Your task to perform on an android device: check android version Image 0: 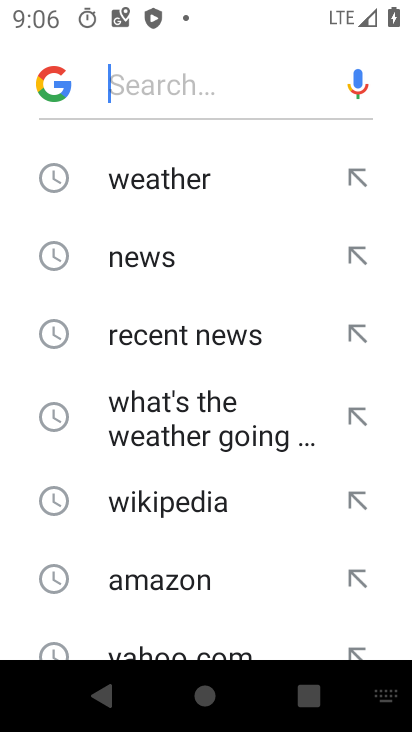
Step 0: press home button
Your task to perform on an android device: check android version Image 1: 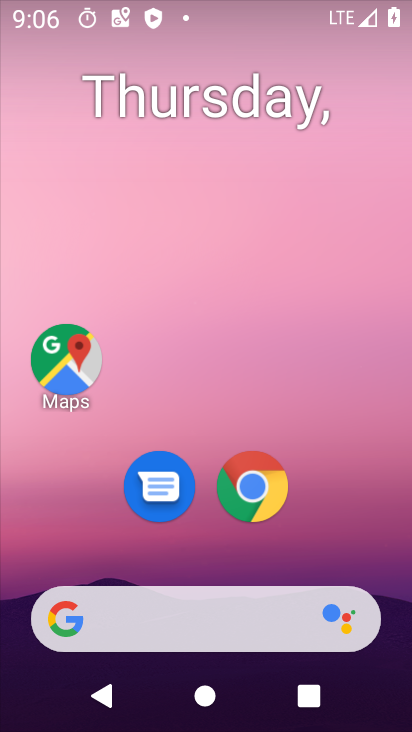
Step 1: drag from (238, 623) to (260, 174)
Your task to perform on an android device: check android version Image 2: 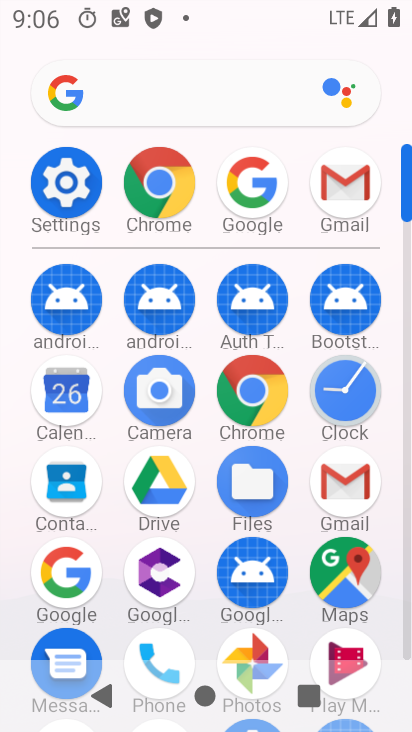
Step 2: click (62, 573)
Your task to perform on an android device: check android version Image 3: 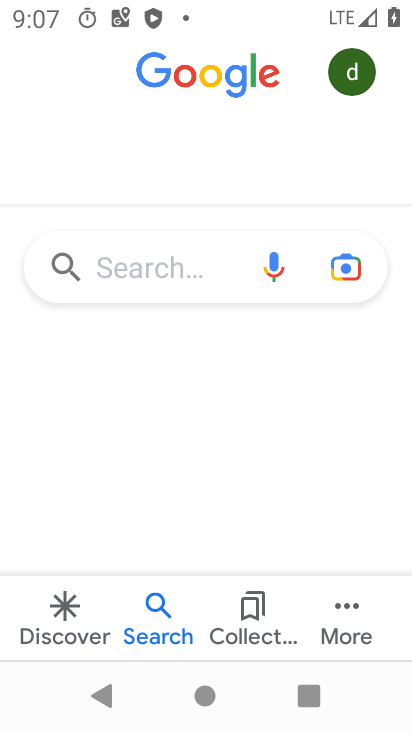
Step 3: click (350, 626)
Your task to perform on an android device: check android version Image 4: 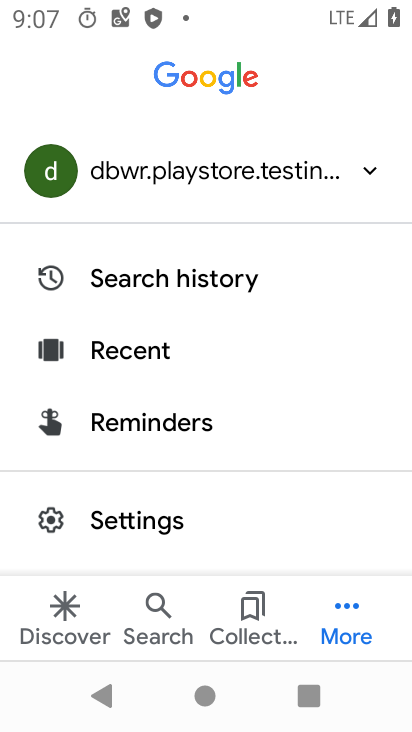
Step 4: click (126, 505)
Your task to perform on an android device: check android version Image 5: 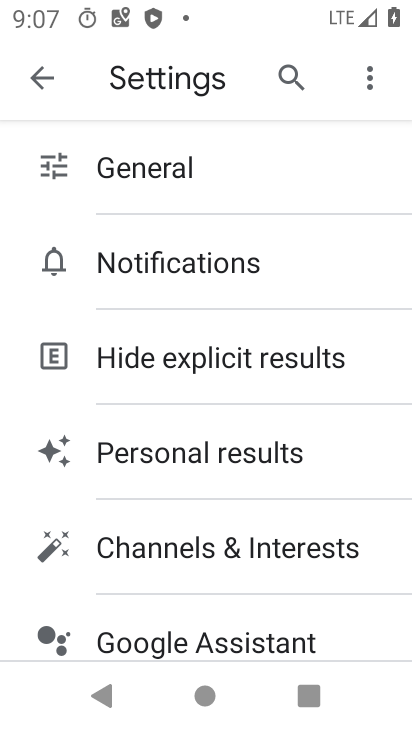
Step 5: drag from (247, 510) to (231, 76)
Your task to perform on an android device: check android version Image 6: 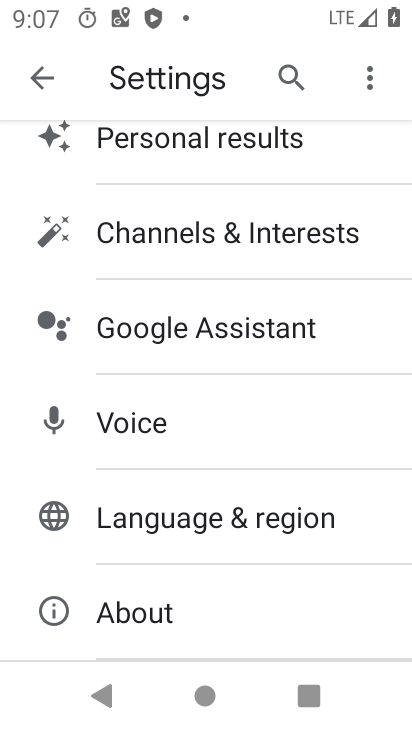
Step 6: click (173, 626)
Your task to perform on an android device: check android version Image 7: 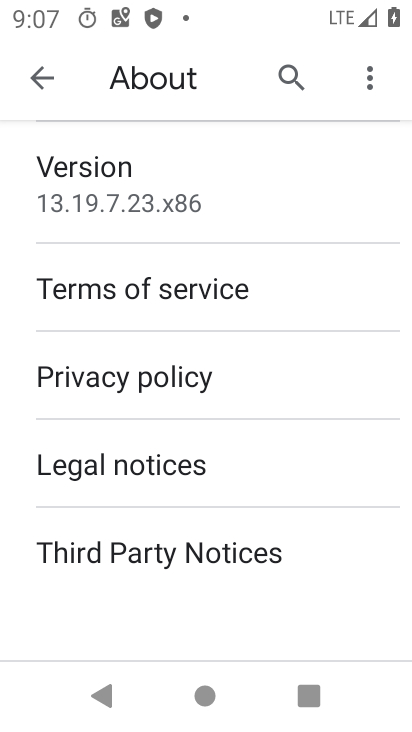
Step 7: task complete